Your task to perform on an android device: open a bookmark in the chrome app Image 0: 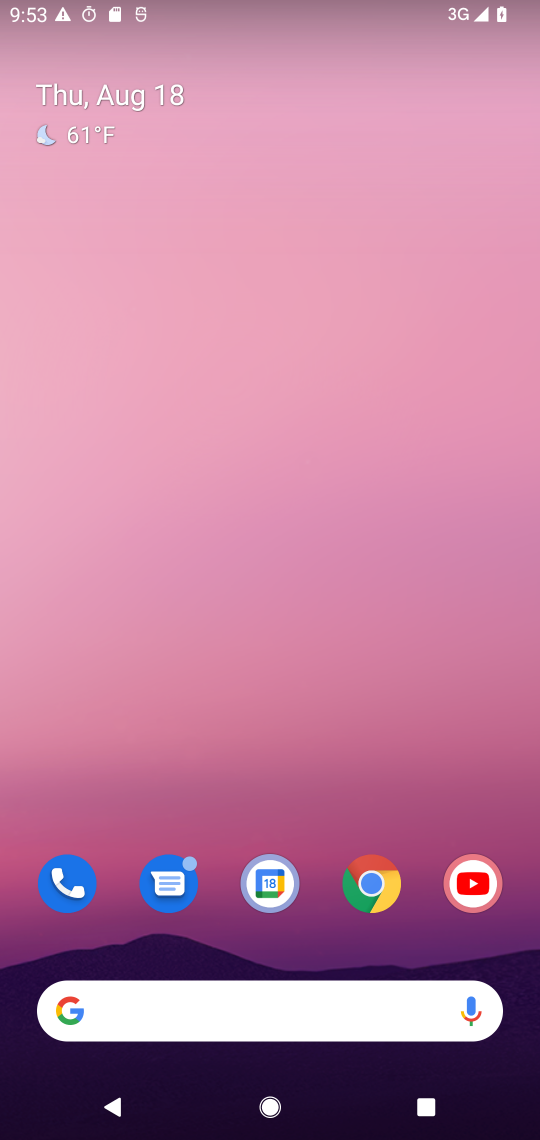
Step 0: click (374, 898)
Your task to perform on an android device: open a bookmark in the chrome app Image 1: 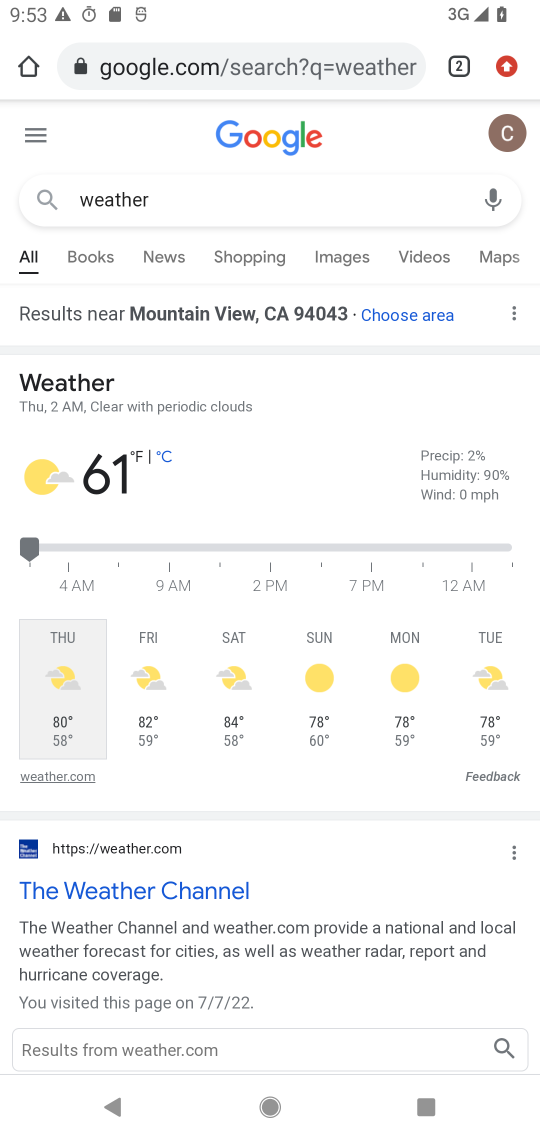
Step 1: click (508, 60)
Your task to perform on an android device: open a bookmark in the chrome app Image 2: 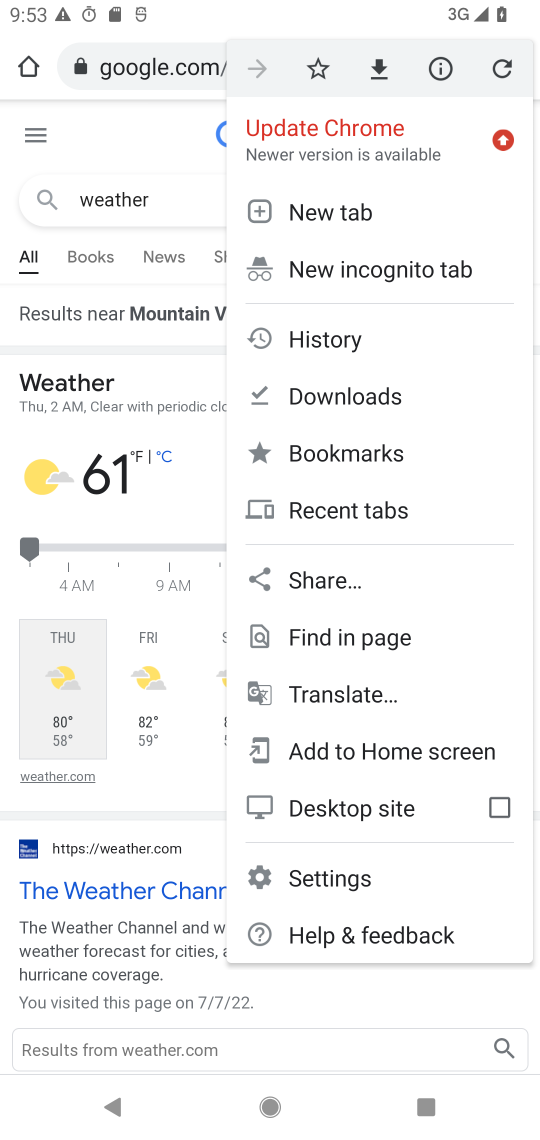
Step 2: click (381, 448)
Your task to perform on an android device: open a bookmark in the chrome app Image 3: 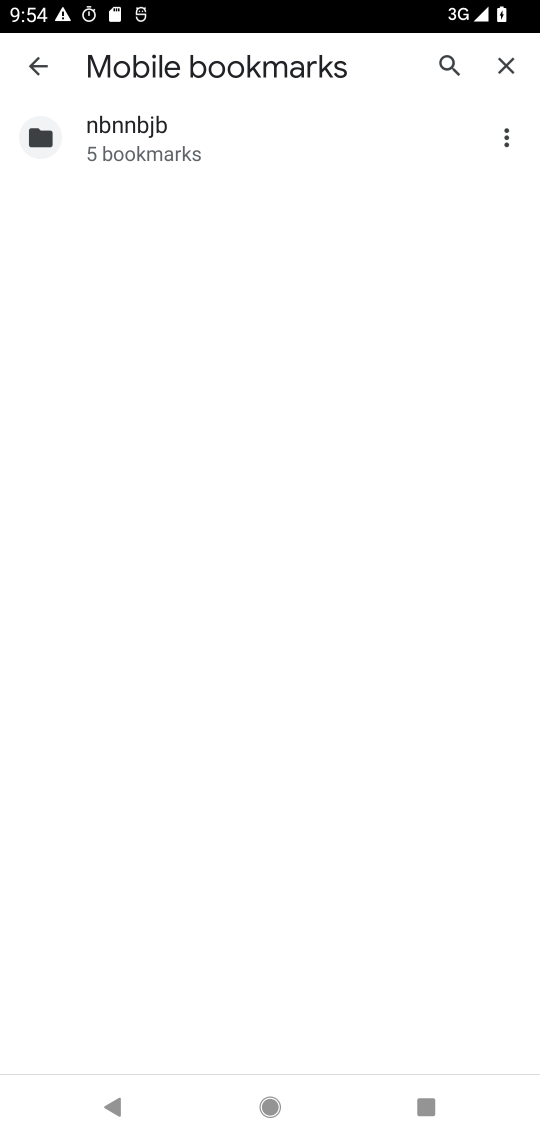
Step 3: task complete